Your task to perform on an android device: Open Google Chrome and click the shortcut for Amazon.com Image 0: 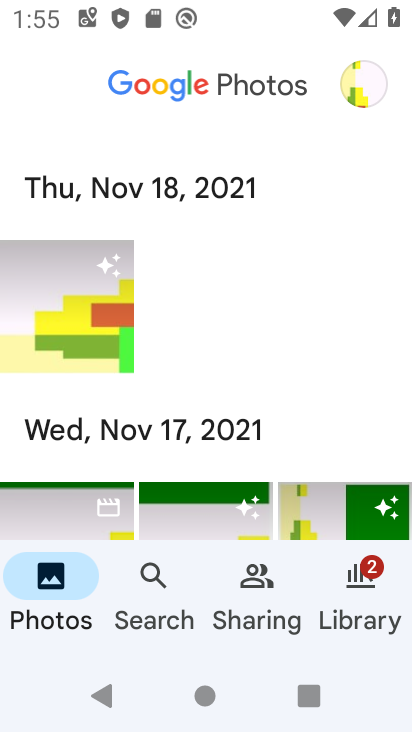
Step 0: press home button
Your task to perform on an android device: Open Google Chrome and click the shortcut for Amazon.com Image 1: 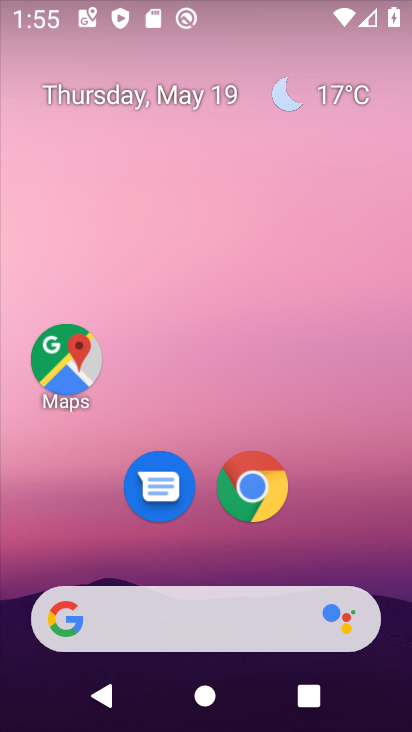
Step 1: click (266, 485)
Your task to perform on an android device: Open Google Chrome and click the shortcut for Amazon.com Image 2: 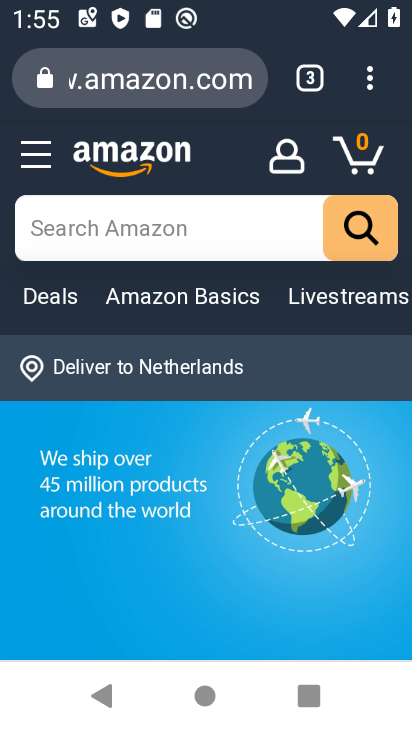
Step 2: task complete